Your task to perform on an android device: Go to settings Image 0: 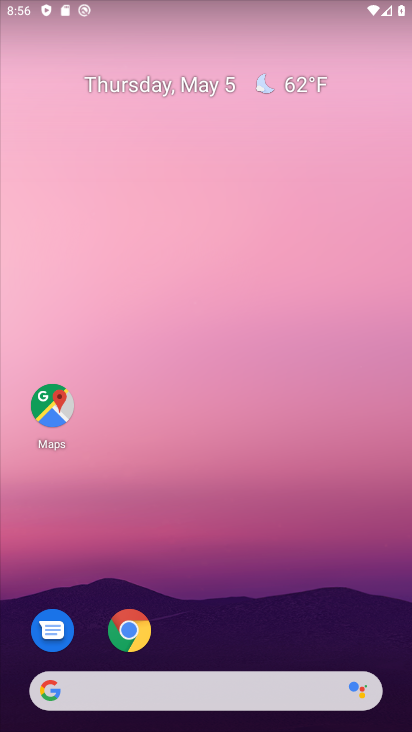
Step 0: drag from (217, 650) to (230, 113)
Your task to perform on an android device: Go to settings Image 1: 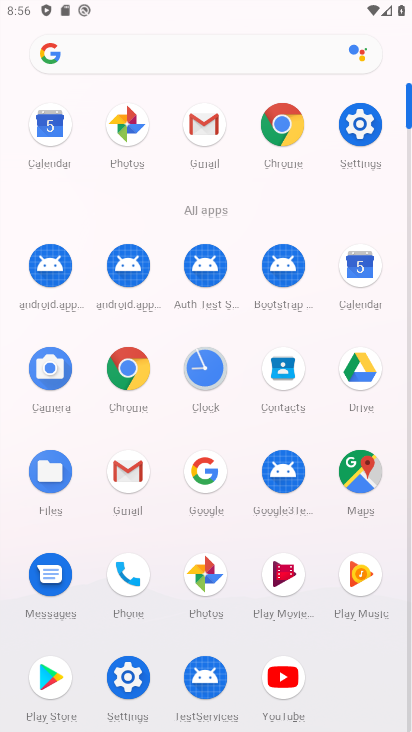
Step 1: click (358, 121)
Your task to perform on an android device: Go to settings Image 2: 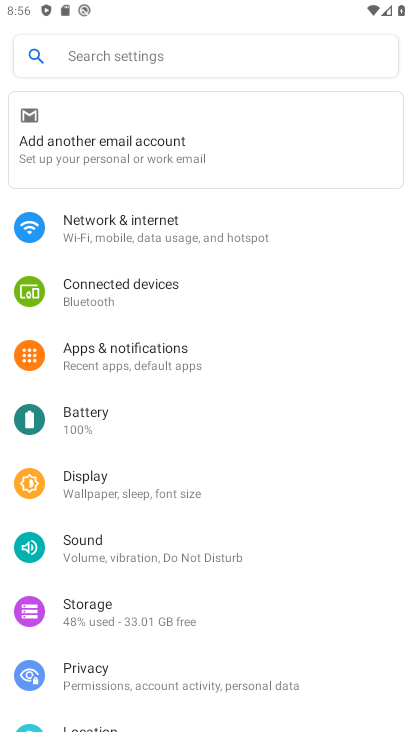
Step 2: task complete